Your task to perform on an android device: View the shopping cart on target. Add "logitech g pro" to the cart on target, then select checkout. Image 0: 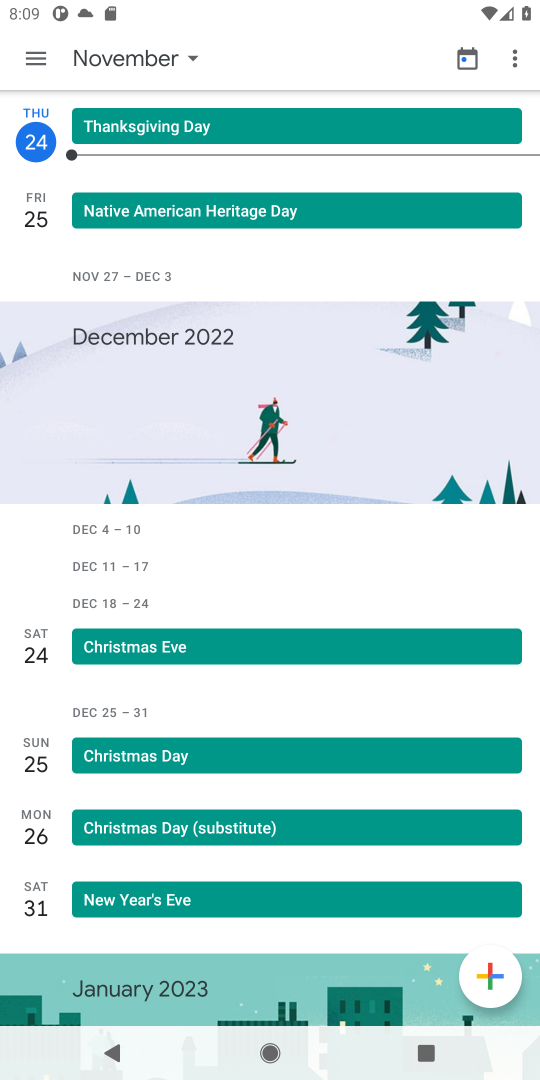
Step 0: press home button
Your task to perform on an android device: View the shopping cart on target. Add "logitech g pro" to the cart on target, then select checkout. Image 1: 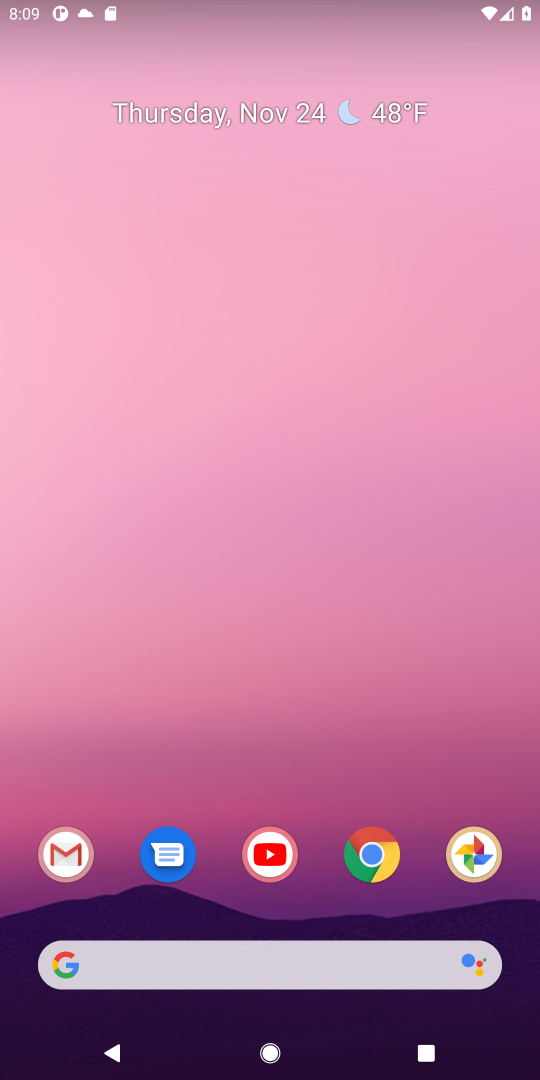
Step 1: click (374, 865)
Your task to perform on an android device: View the shopping cart on target. Add "logitech g pro" to the cart on target, then select checkout. Image 2: 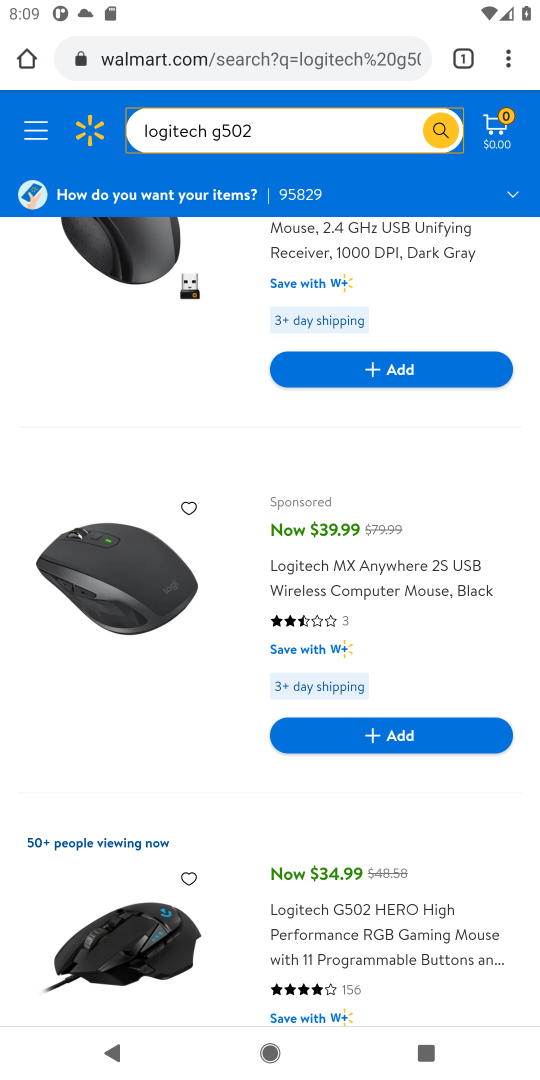
Step 2: click (251, 64)
Your task to perform on an android device: View the shopping cart on target. Add "logitech g pro" to the cart on target, then select checkout. Image 3: 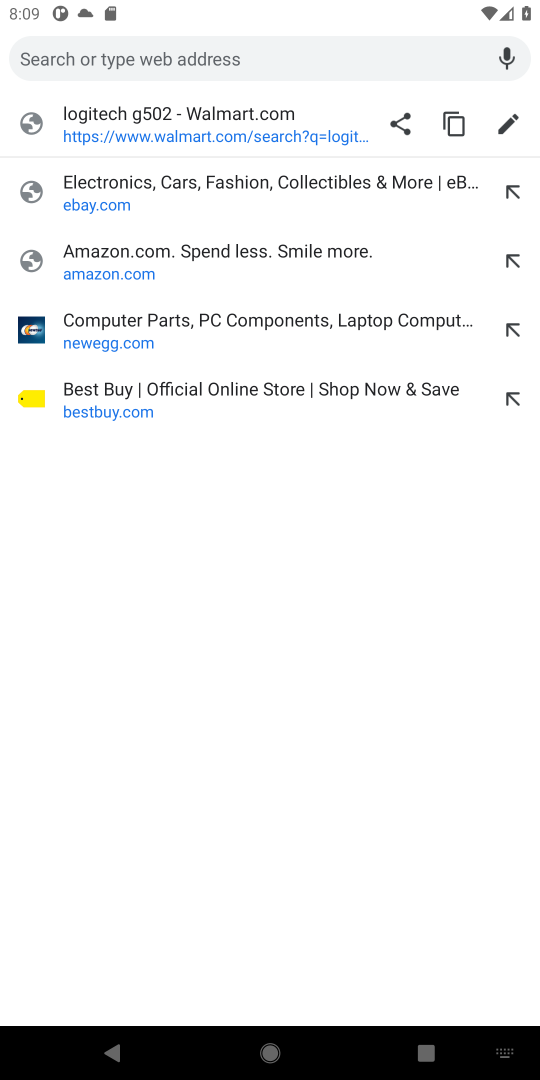
Step 3: type "target.com"
Your task to perform on an android device: View the shopping cart on target. Add "logitech g pro" to the cart on target, then select checkout. Image 4: 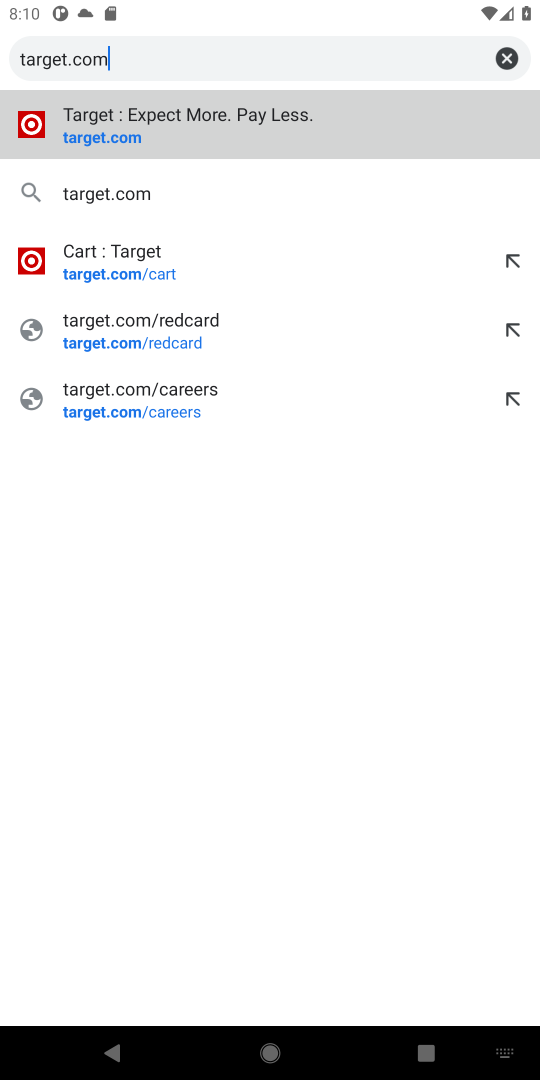
Step 4: click (100, 138)
Your task to perform on an android device: View the shopping cart on target. Add "logitech g pro" to the cart on target, then select checkout. Image 5: 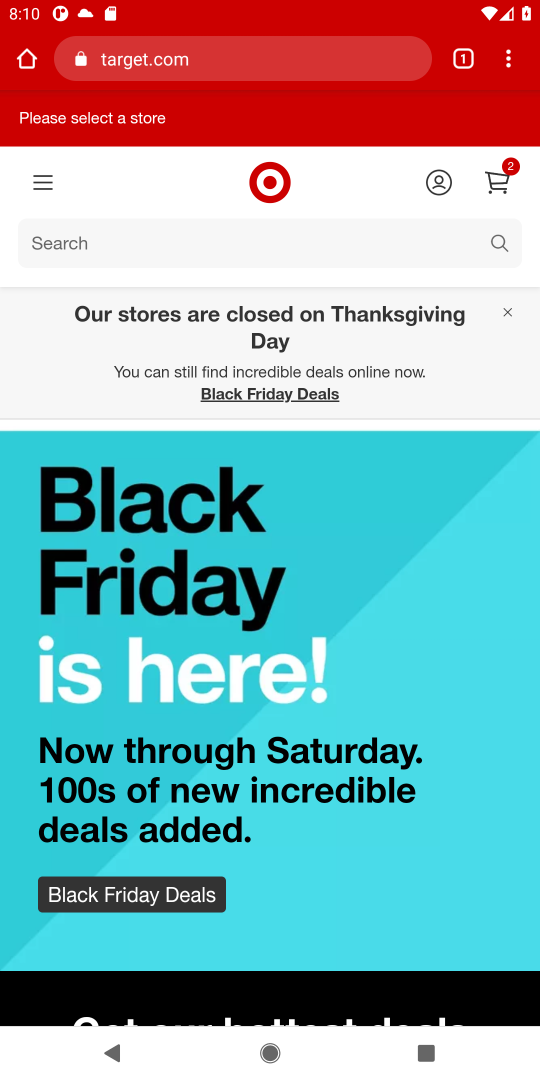
Step 5: click (500, 186)
Your task to perform on an android device: View the shopping cart on target. Add "logitech g pro" to the cart on target, then select checkout. Image 6: 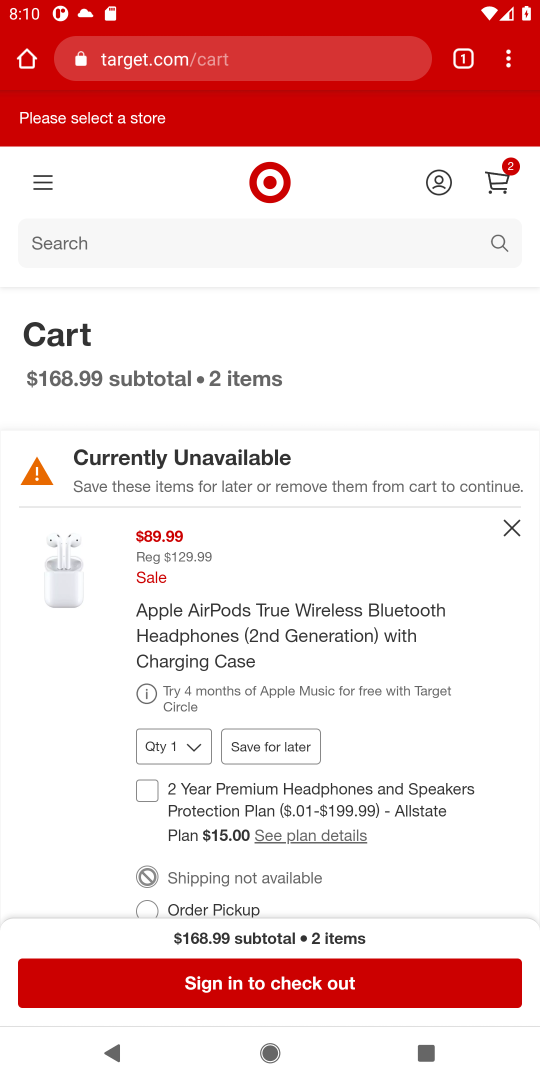
Step 6: drag from (419, 672) to (399, 438)
Your task to perform on an android device: View the shopping cart on target. Add "logitech g pro" to the cart on target, then select checkout. Image 7: 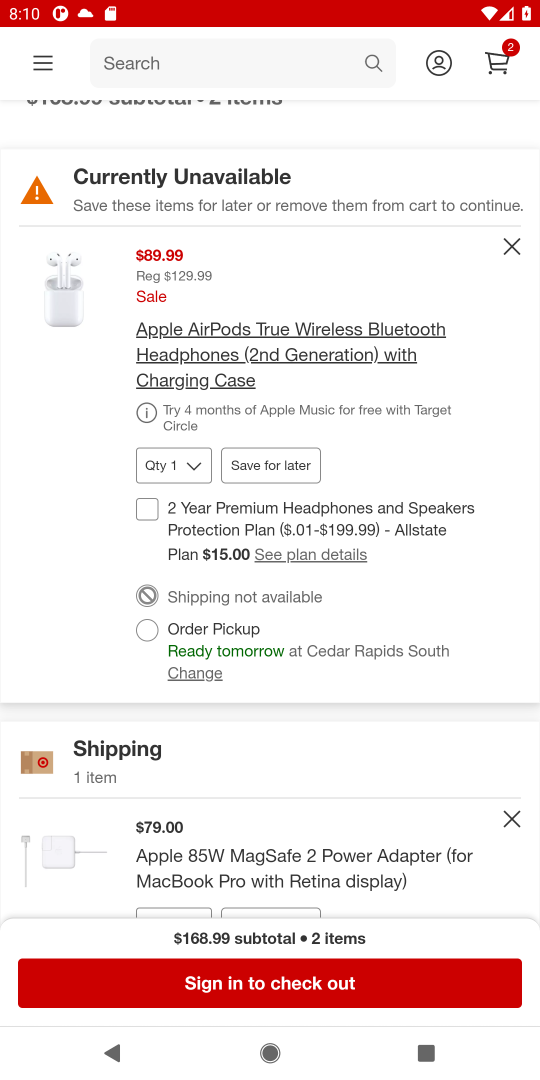
Step 7: drag from (281, 208) to (275, 658)
Your task to perform on an android device: View the shopping cart on target. Add "logitech g pro" to the cart on target, then select checkout. Image 8: 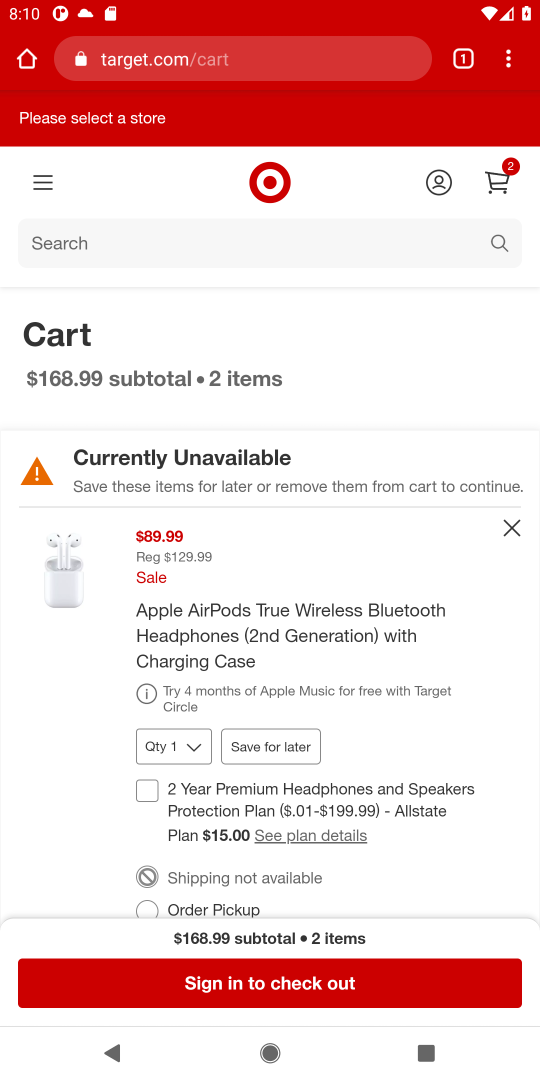
Step 8: click (487, 239)
Your task to perform on an android device: View the shopping cart on target. Add "logitech g pro" to the cart on target, then select checkout. Image 9: 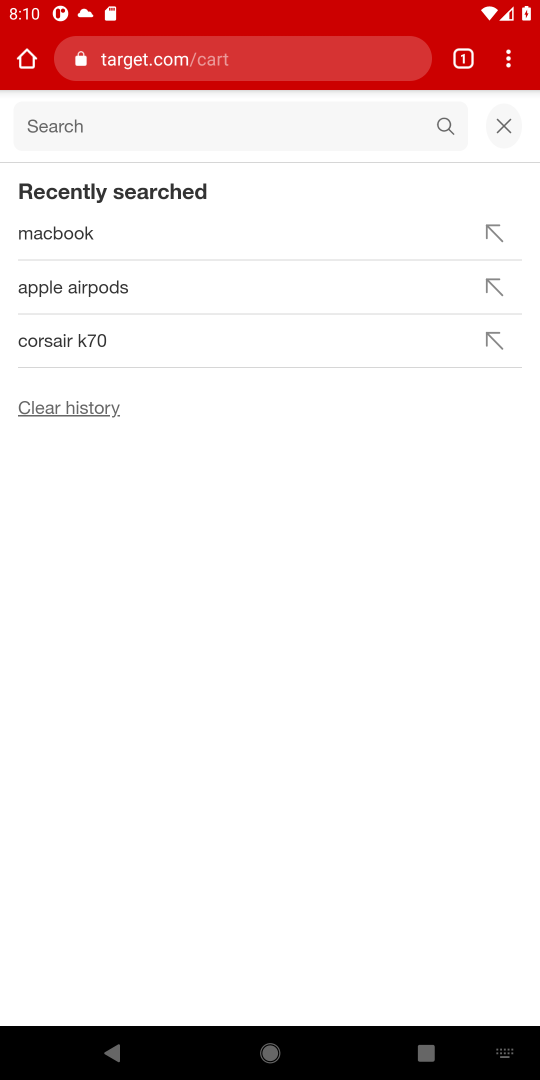
Step 9: type "logitech g pro"
Your task to perform on an android device: View the shopping cart on target. Add "logitech g pro" to the cart on target, then select checkout. Image 10: 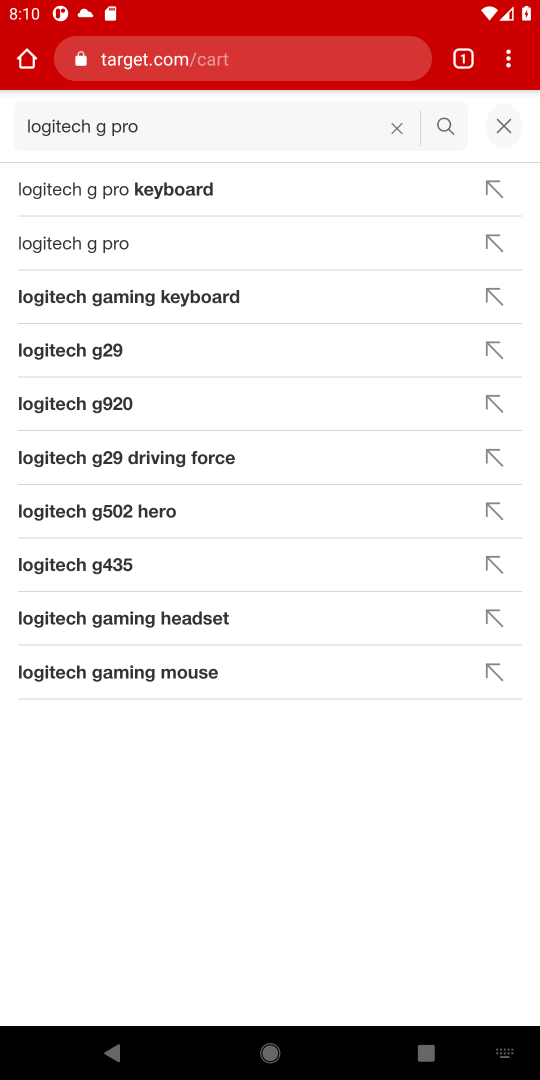
Step 10: click (82, 238)
Your task to perform on an android device: View the shopping cart on target. Add "logitech g pro" to the cart on target, then select checkout. Image 11: 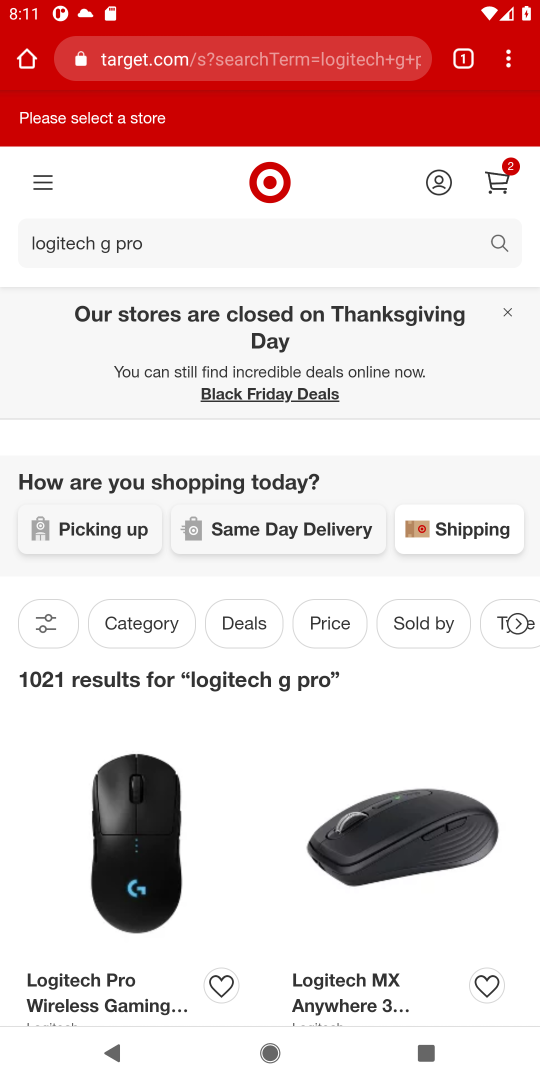
Step 11: task complete